Your task to perform on an android device: change keyboard looks Image 0: 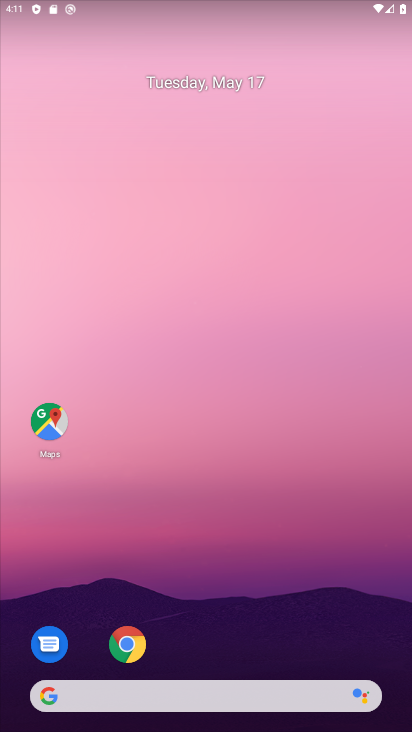
Step 0: drag from (214, 564) to (173, 70)
Your task to perform on an android device: change keyboard looks Image 1: 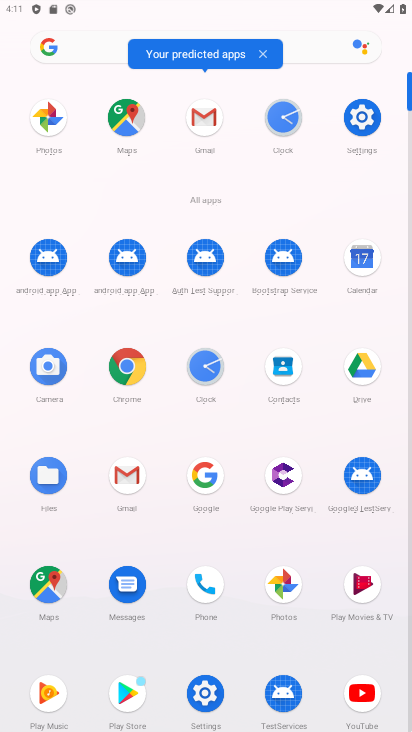
Step 1: click (199, 688)
Your task to perform on an android device: change keyboard looks Image 2: 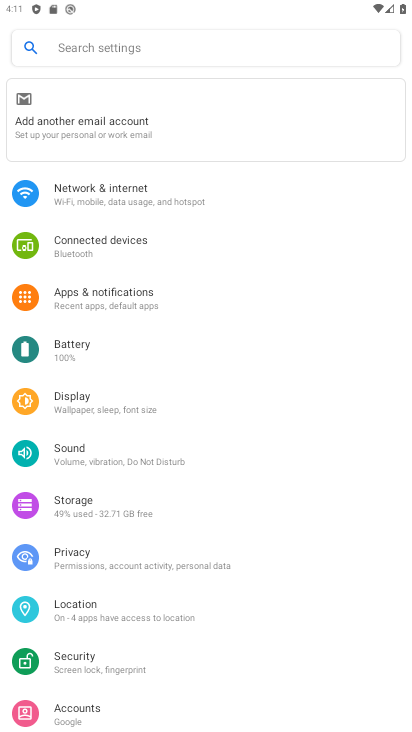
Step 2: drag from (175, 636) to (222, 305)
Your task to perform on an android device: change keyboard looks Image 3: 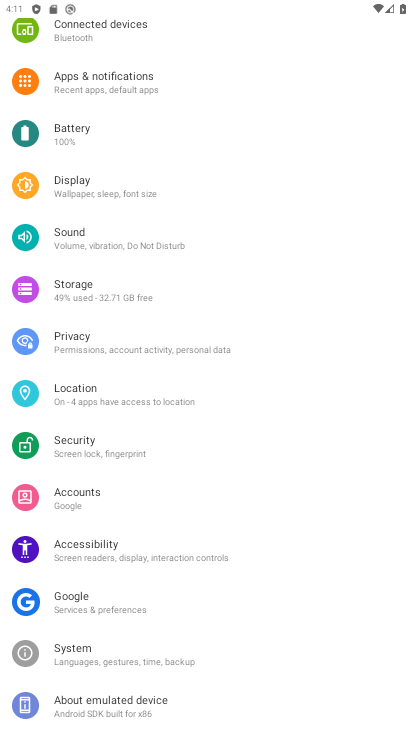
Step 3: click (65, 647)
Your task to perform on an android device: change keyboard looks Image 4: 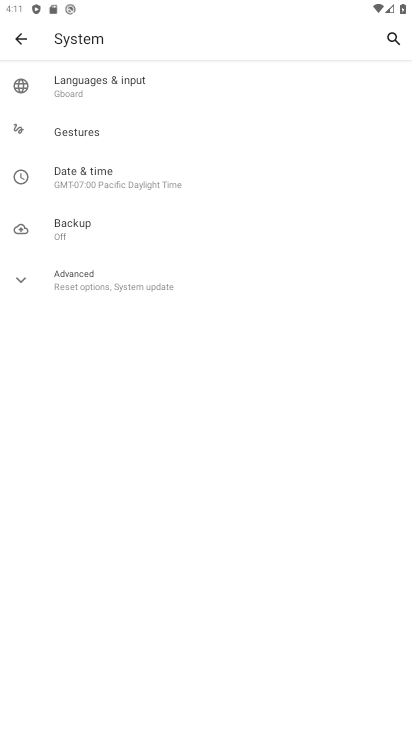
Step 4: click (86, 79)
Your task to perform on an android device: change keyboard looks Image 5: 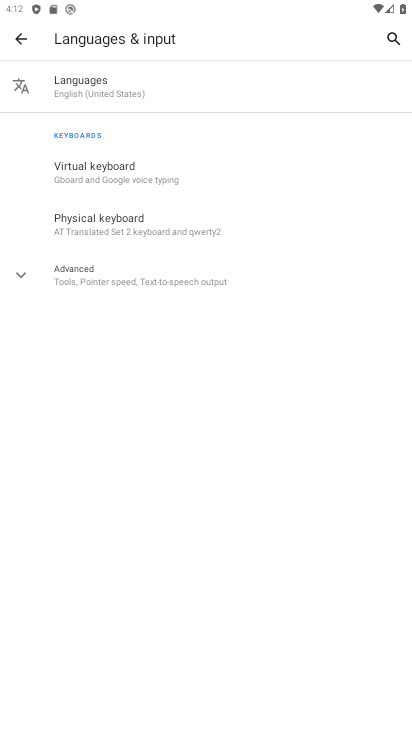
Step 5: click (98, 172)
Your task to perform on an android device: change keyboard looks Image 6: 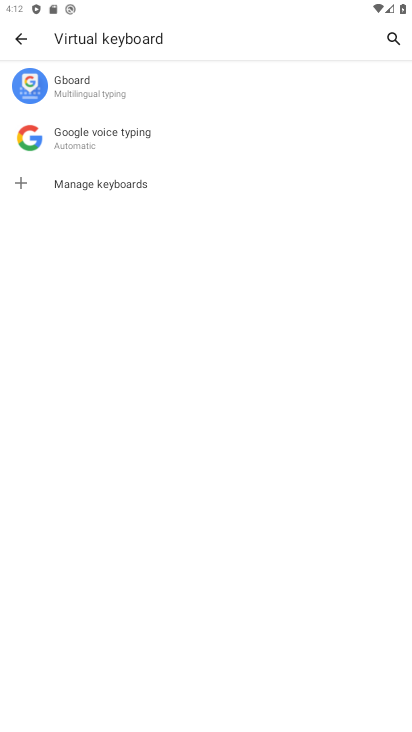
Step 6: click (66, 89)
Your task to perform on an android device: change keyboard looks Image 7: 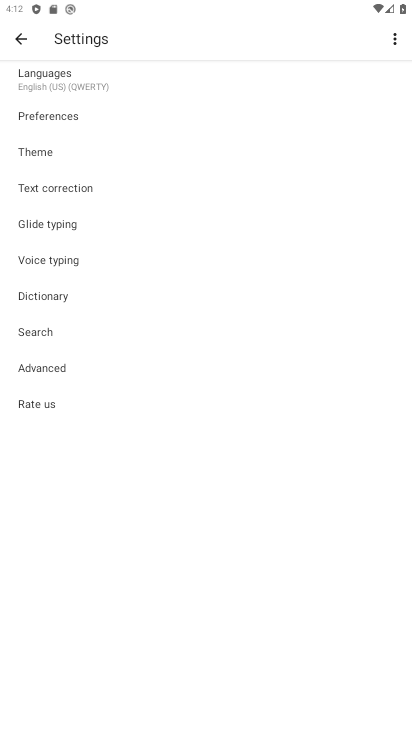
Step 7: click (38, 148)
Your task to perform on an android device: change keyboard looks Image 8: 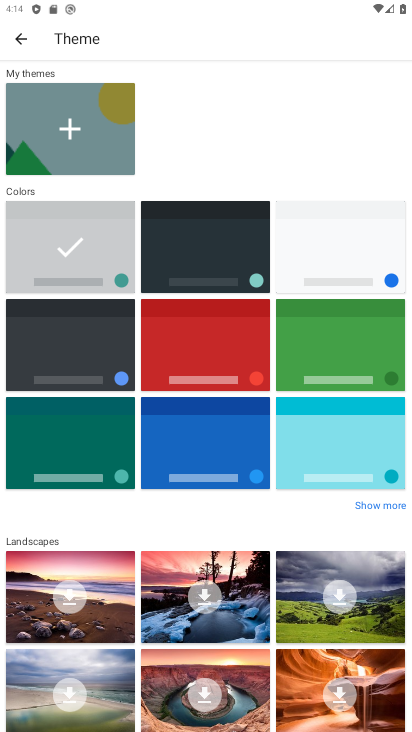
Step 8: click (217, 245)
Your task to perform on an android device: change keyboard looks Image 9: 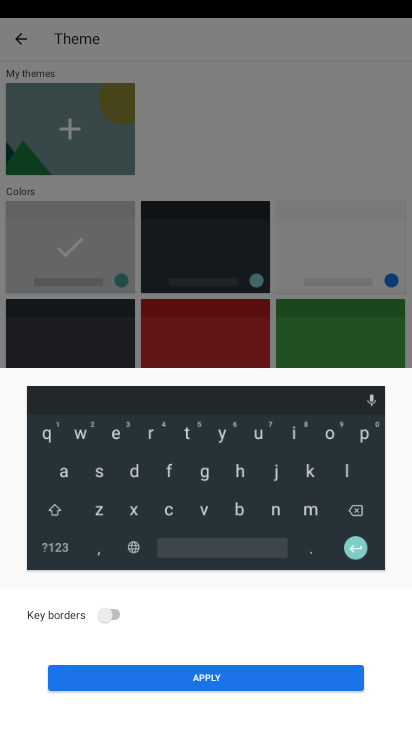
Step 9: click (116, 615)
Your task to perform on an android device: change keyboard looks Image 10: 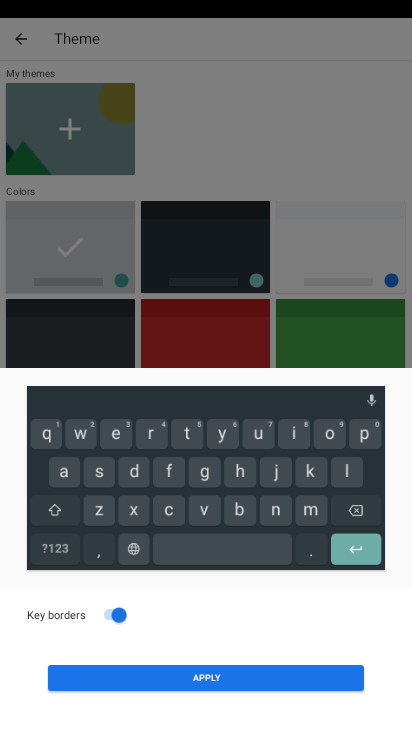
Step 10: click (192, 686)
Your task to perform on an android device: change keyboard looks Image 11: 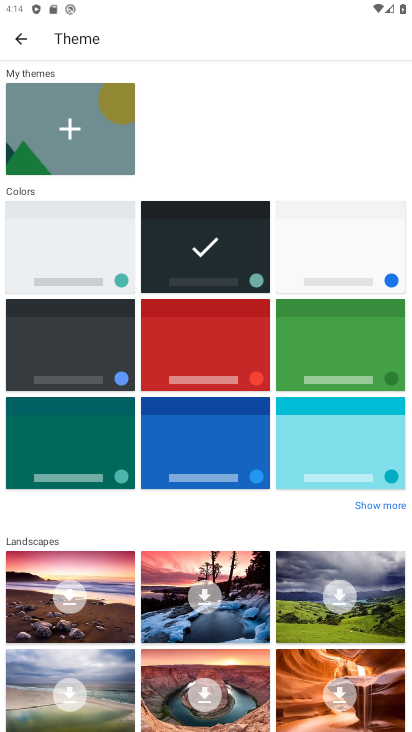
Step 11: task complete